Your task to perform on an android device: What's the weather going to be tomorrow? Image 0: 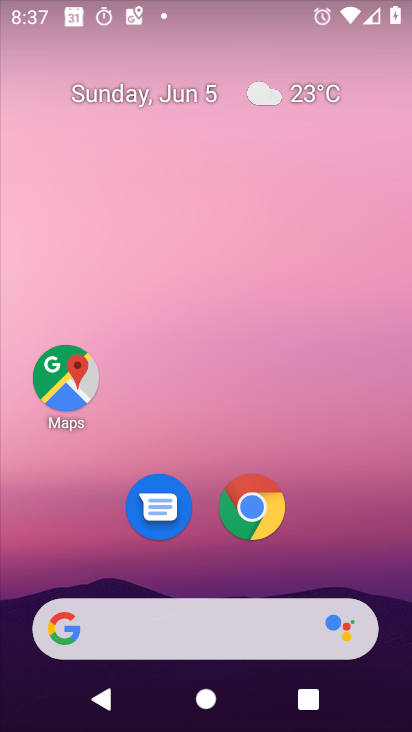
Step 0: drag from (280, 662) to (308, 218)
Your task to perform on an android device: What's the weather going to be tomorrow? Image 1: 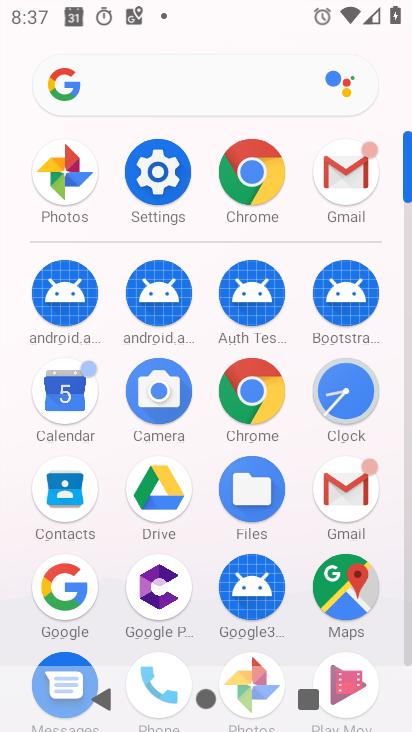
Step 1: click (160, 102)
Your task to perform on an android device: What's the weather going to be tomorrow? Image 2: 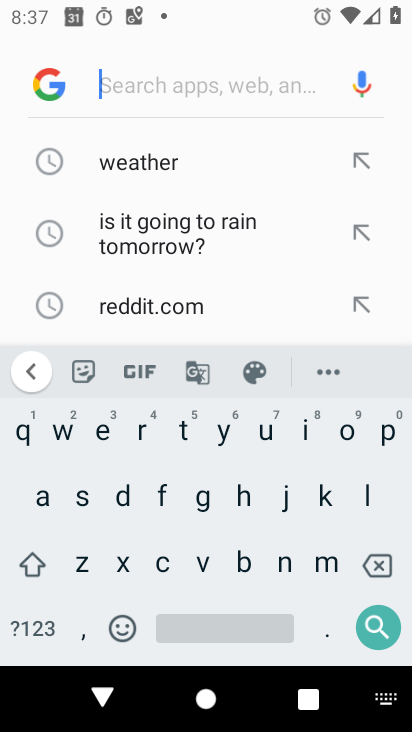
Step 2: click (123, 157)
Your task to perform on an android device: What's the weather going to be tomorrow? Image 3: 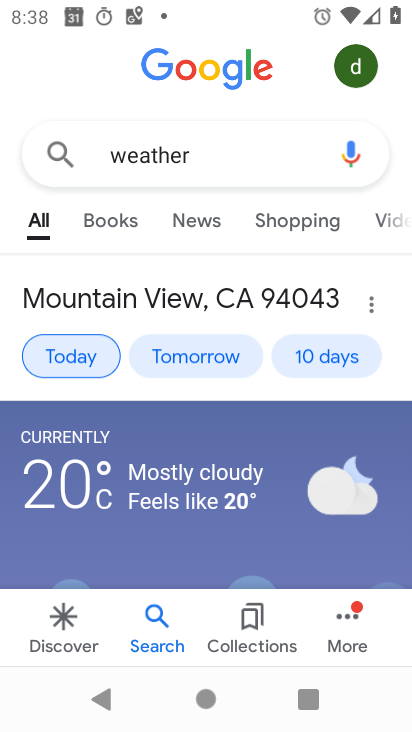
Step 3: click (209, 348)
Your task to perform on an android device: What's the weather going to be tomorrow? Image 4: 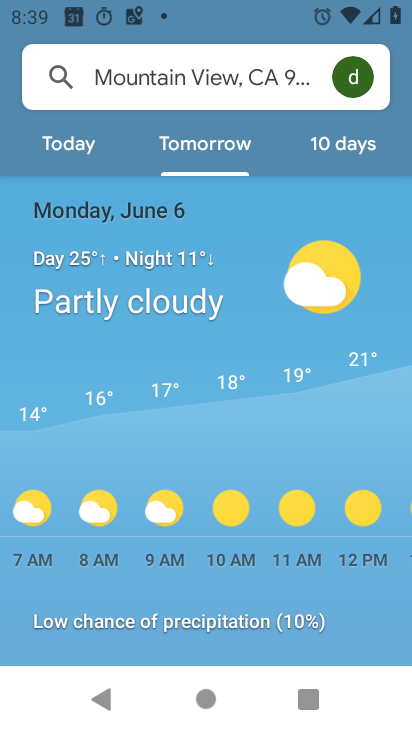
Step 4: task complete